Your task to perform on an android device: Search for razer blade on newegg, select the first entry, add it to the cart, then select checkout. Image 0: 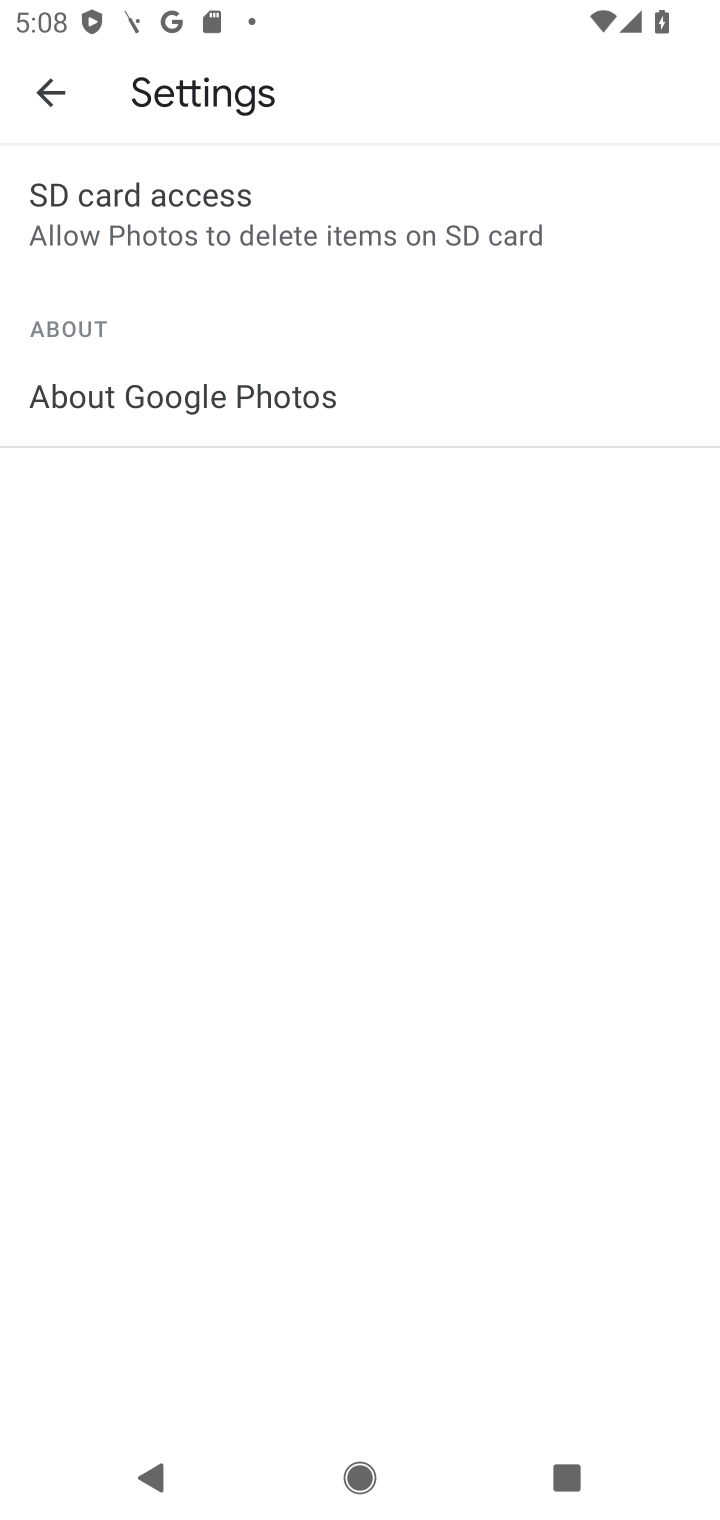
Step 0: press home button
Your task to perform on an android device: Search for razer blade on newegg, select the first entry, add it to the cart, then select checkout. Image 1: 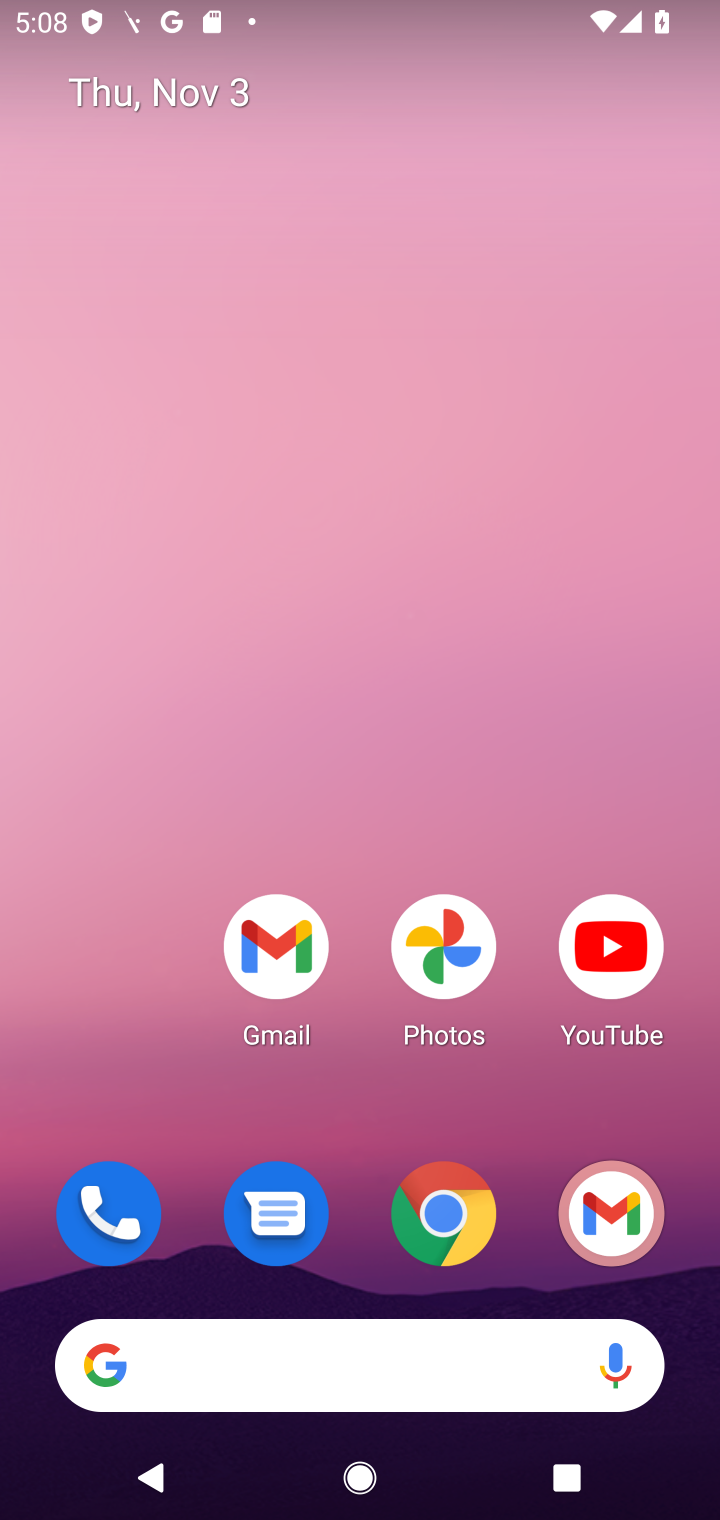
Step 1: click (447, 1225)
Your task to perform on an android device: Search for razer blade on newegg, select the first entry, add it to the cart, then select checkout. Image 2: 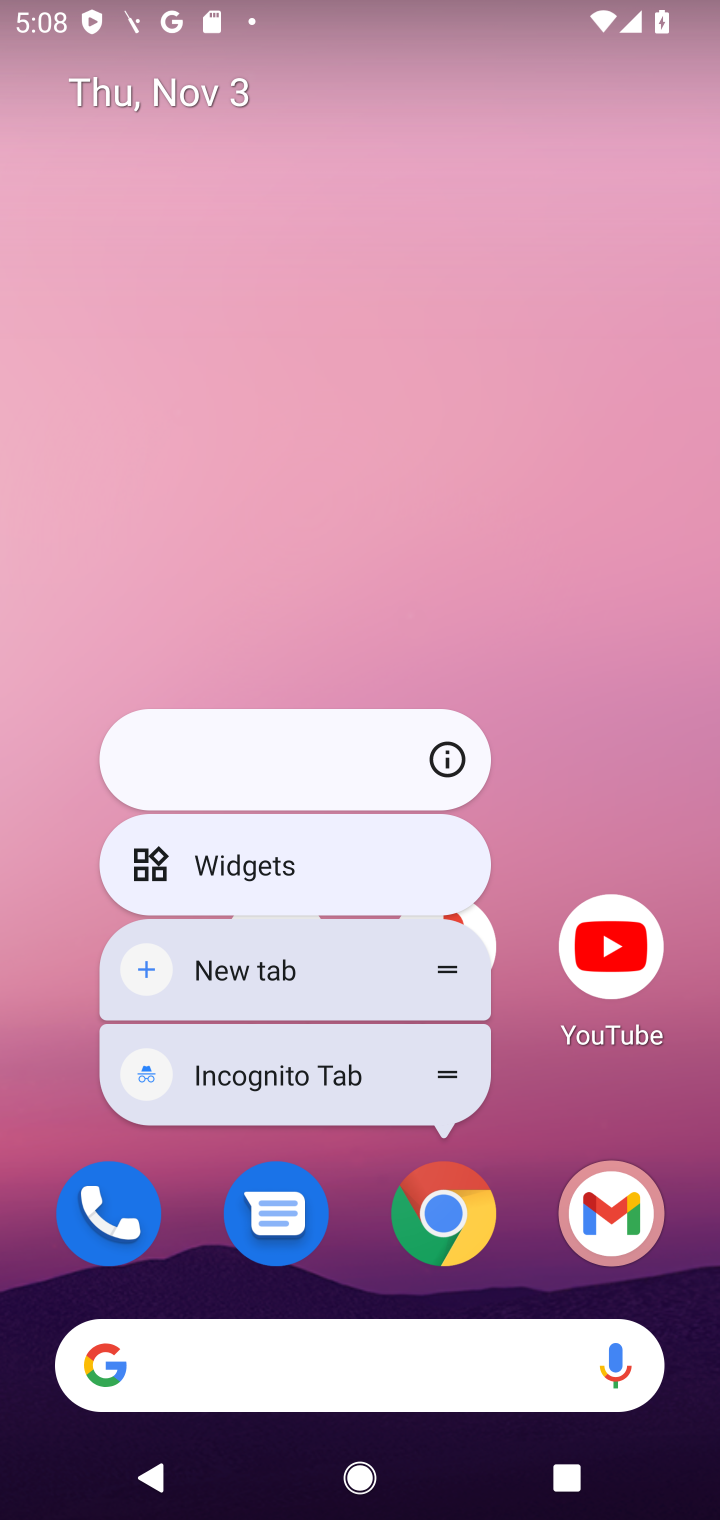
Step 2: click (447, 1225)
Your task to perform on an android device: Search for razer blade on newegg, select the first entry, add it to the cart, then select checkout. Image 3: 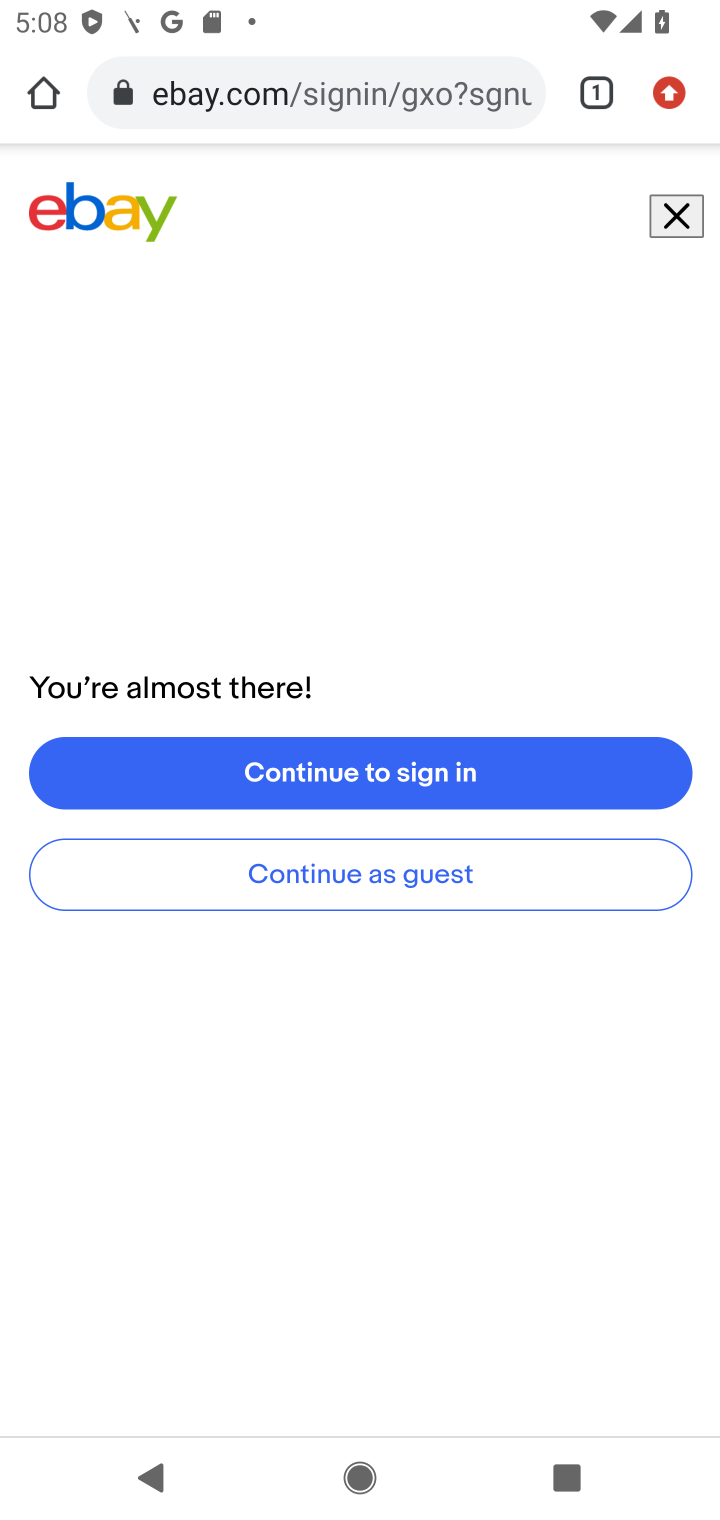
Step 3: click (322, 109)
Your task to perform on an android device: Search for razer blade on newegg, select the first entry, add it to the cart, then select checkout. Image 4: 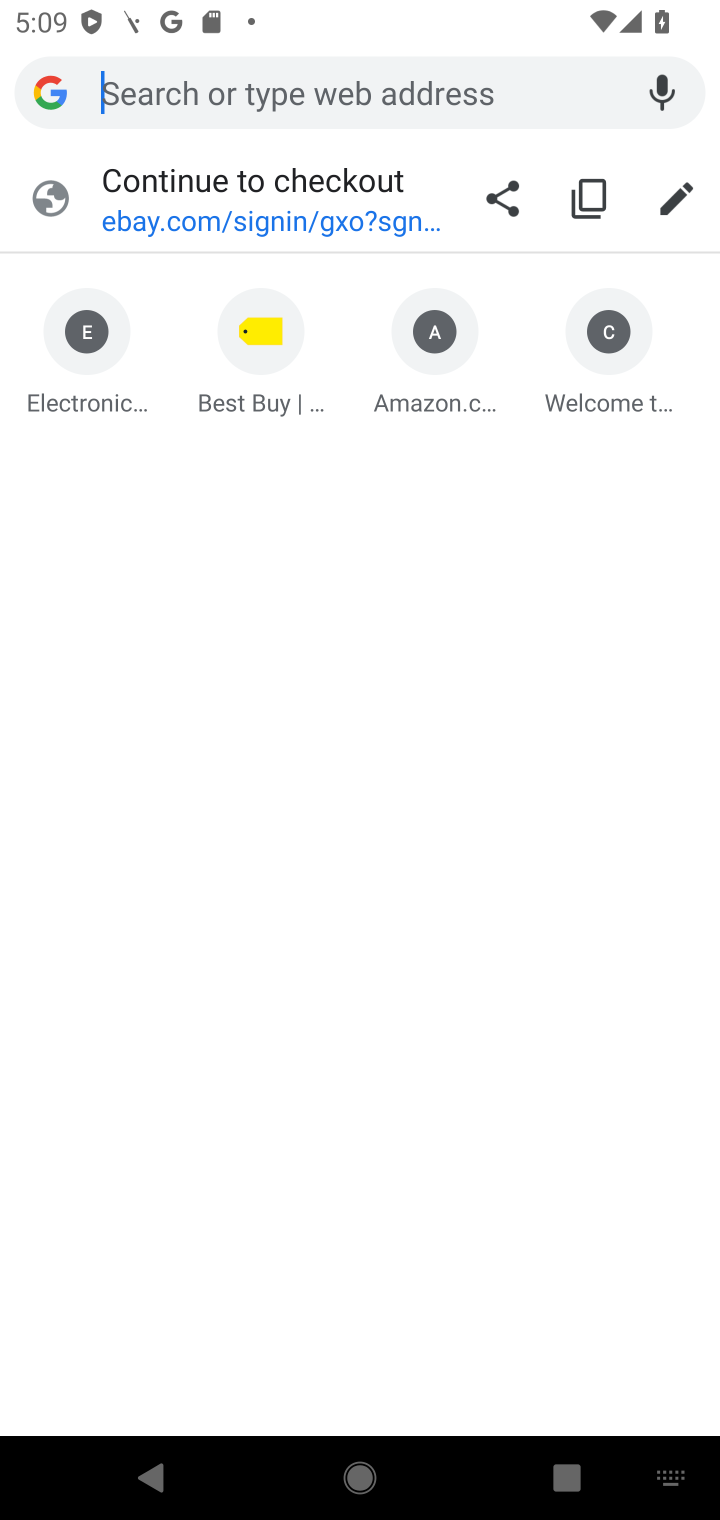
Step 4: type "newegg.com"
Your task to perform on an android device: Search for razer blade on newegg, select the first entry, add it to the cart, then select checkout. Image 5: 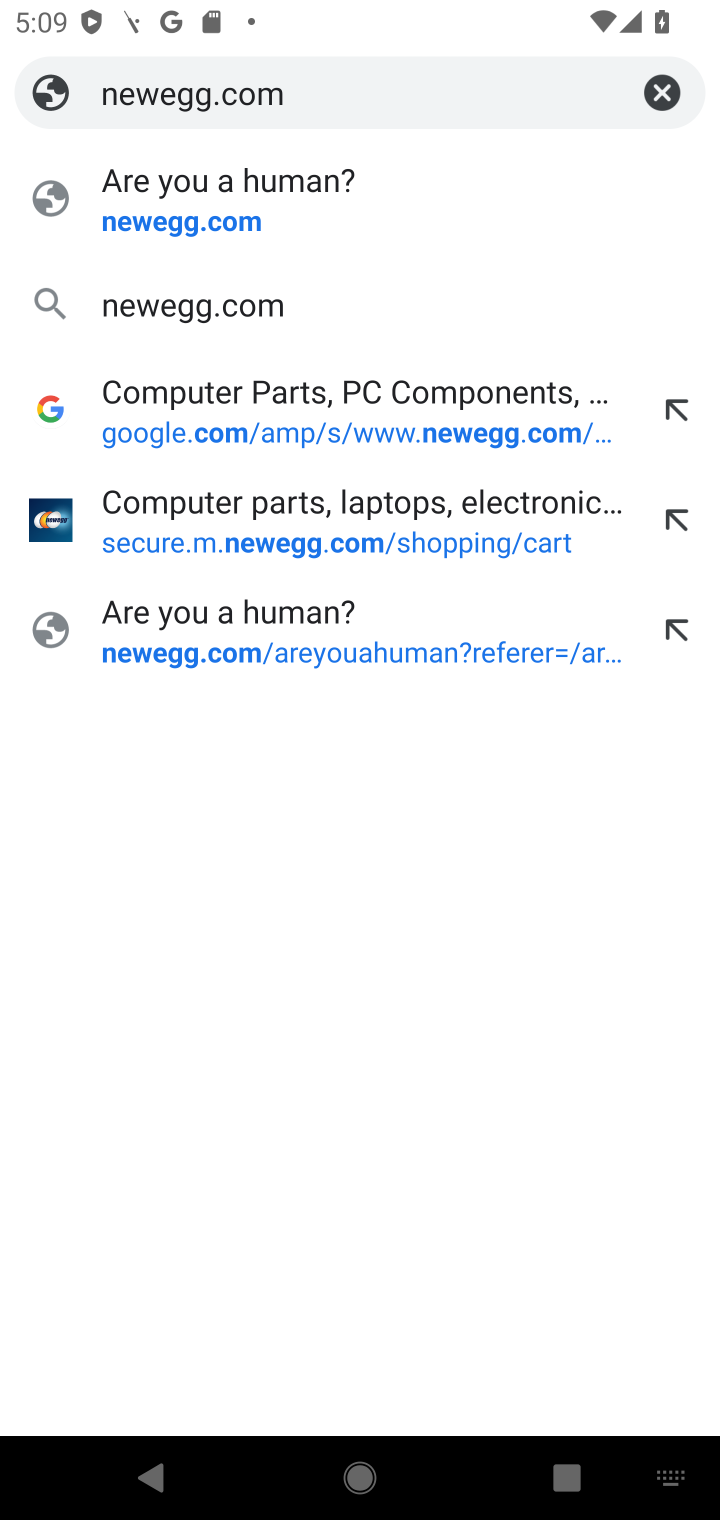
Step 5: click (141, 339)
Your task to perform on an android device: Search for razer blade on newegg, select the first entry, add it to the cart, then select checkout. Image 6: 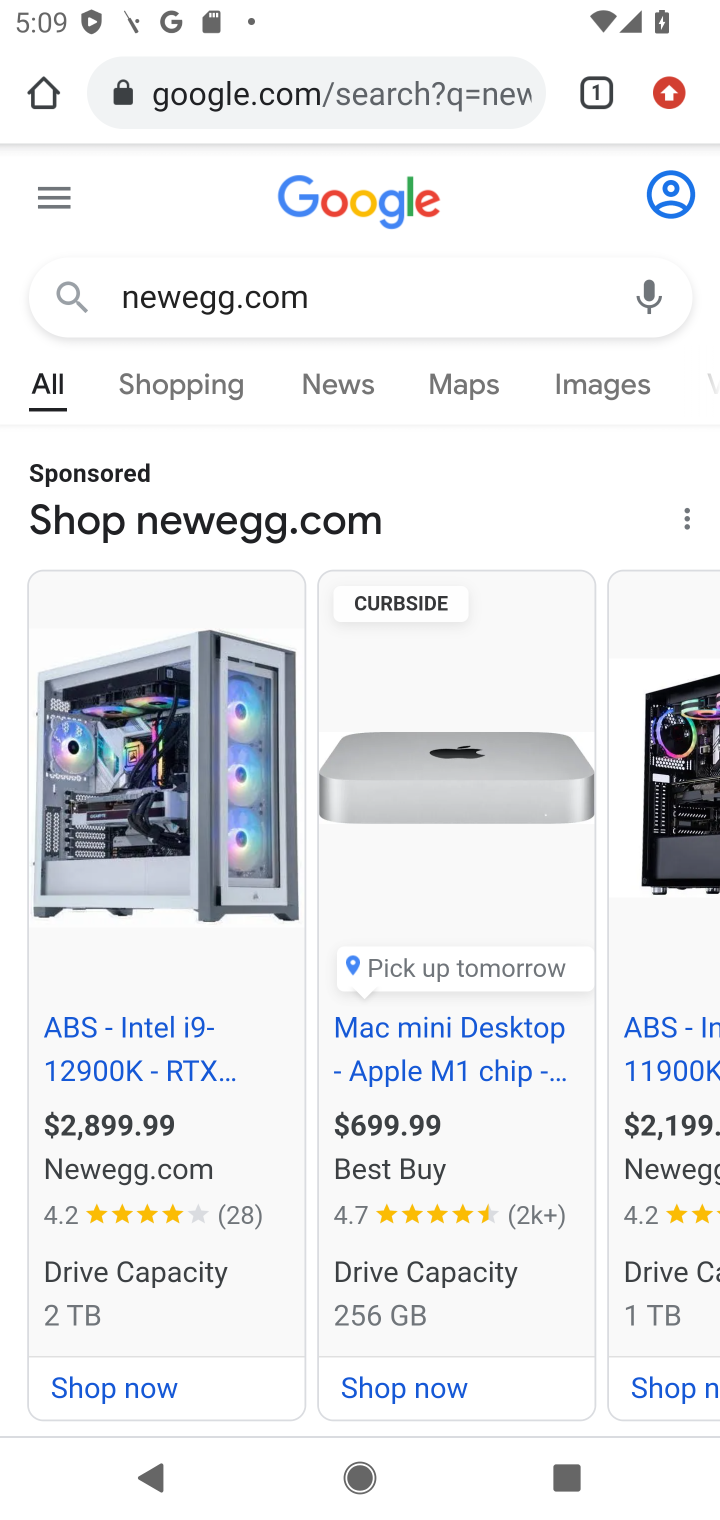
Step 6: drag from (237, 899) to (301, 290)
Your task to perform on an android device: Search for razer blade on newegg, select the first entry, add it to the cart, then select checkout. Image 7: 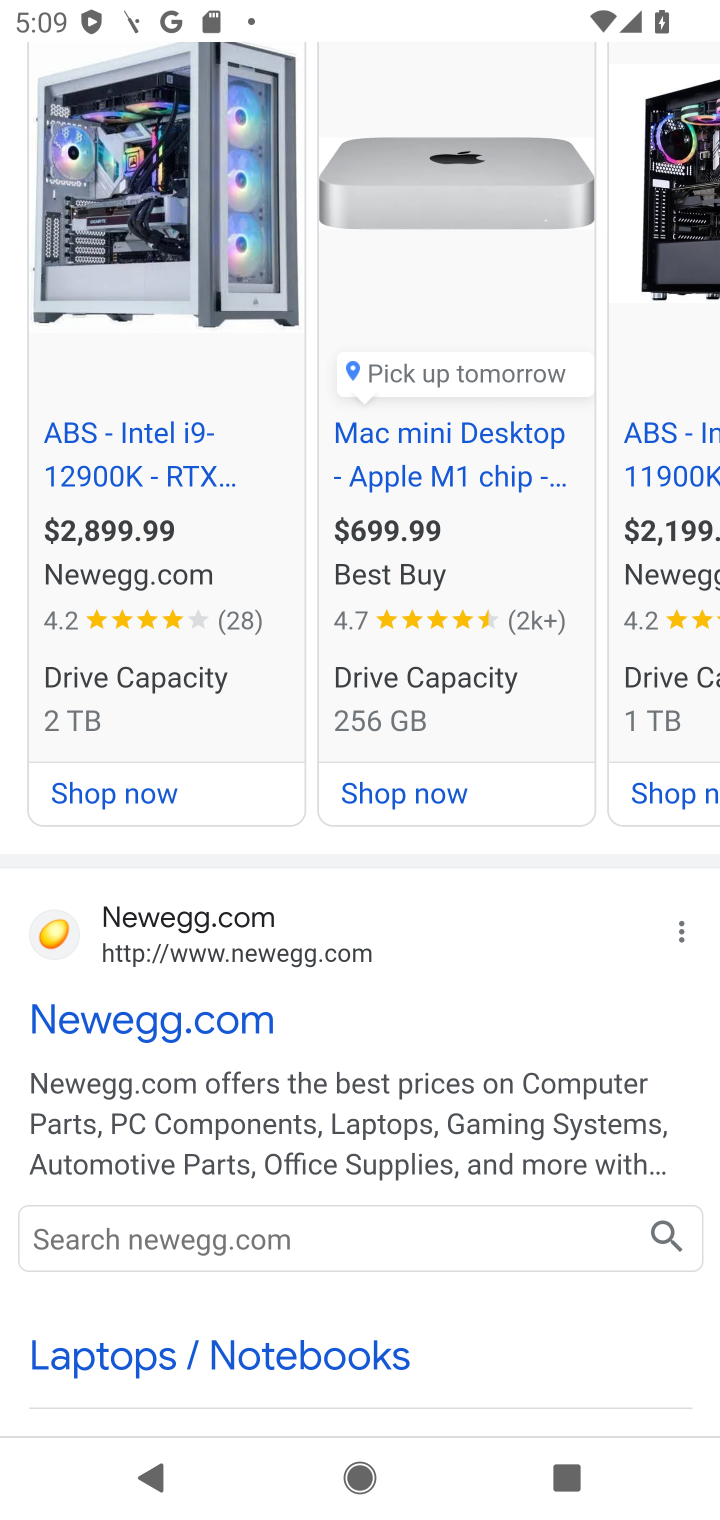
Step 7: click (170, 1040)
Your task to perform on an android device: Search for razer blade on newegg, select the first entry, add it to the cart, then select checkout. Image 8: 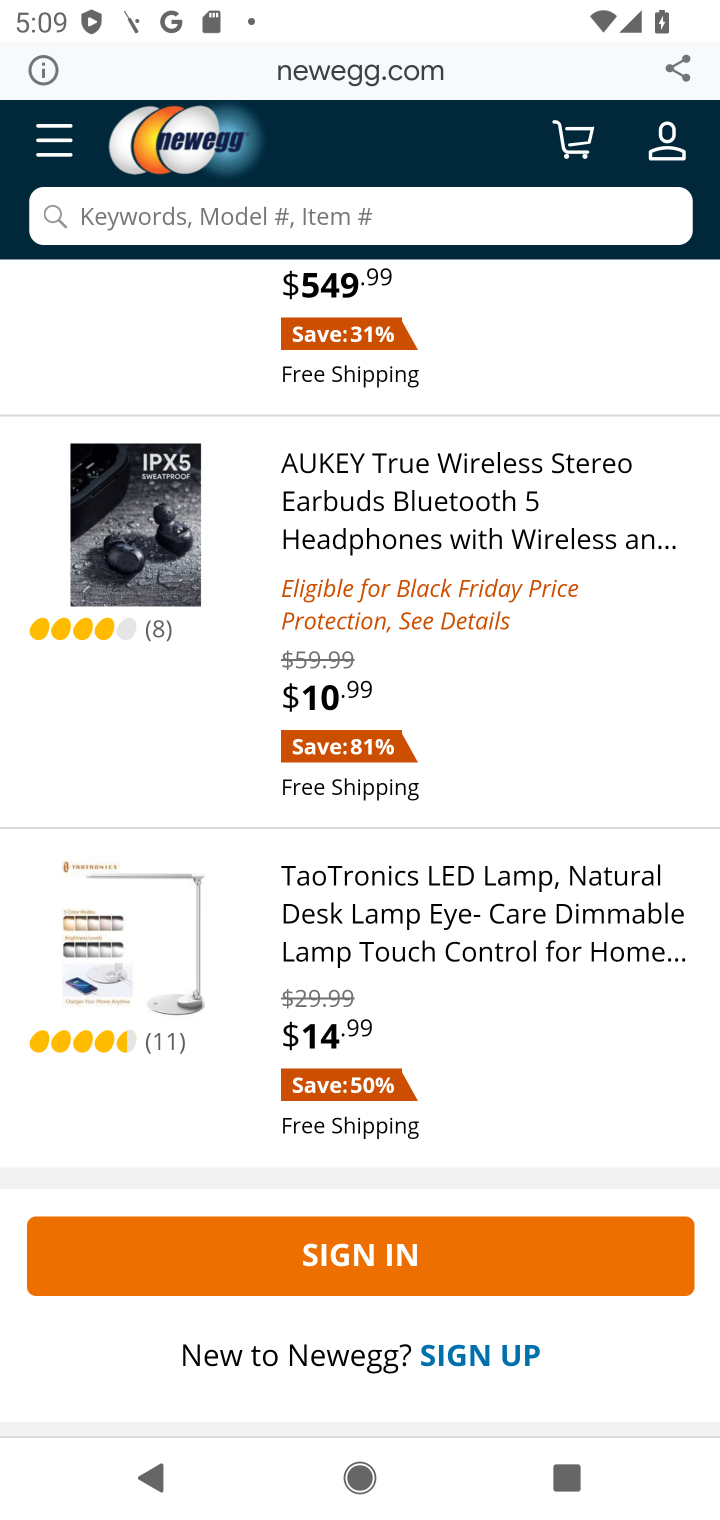
Step 8: click (300, 224)
Your task to perform on an android device: Search for razer blade on newegg, select the first entry, add it to the cart, then select checkout. Image 9: 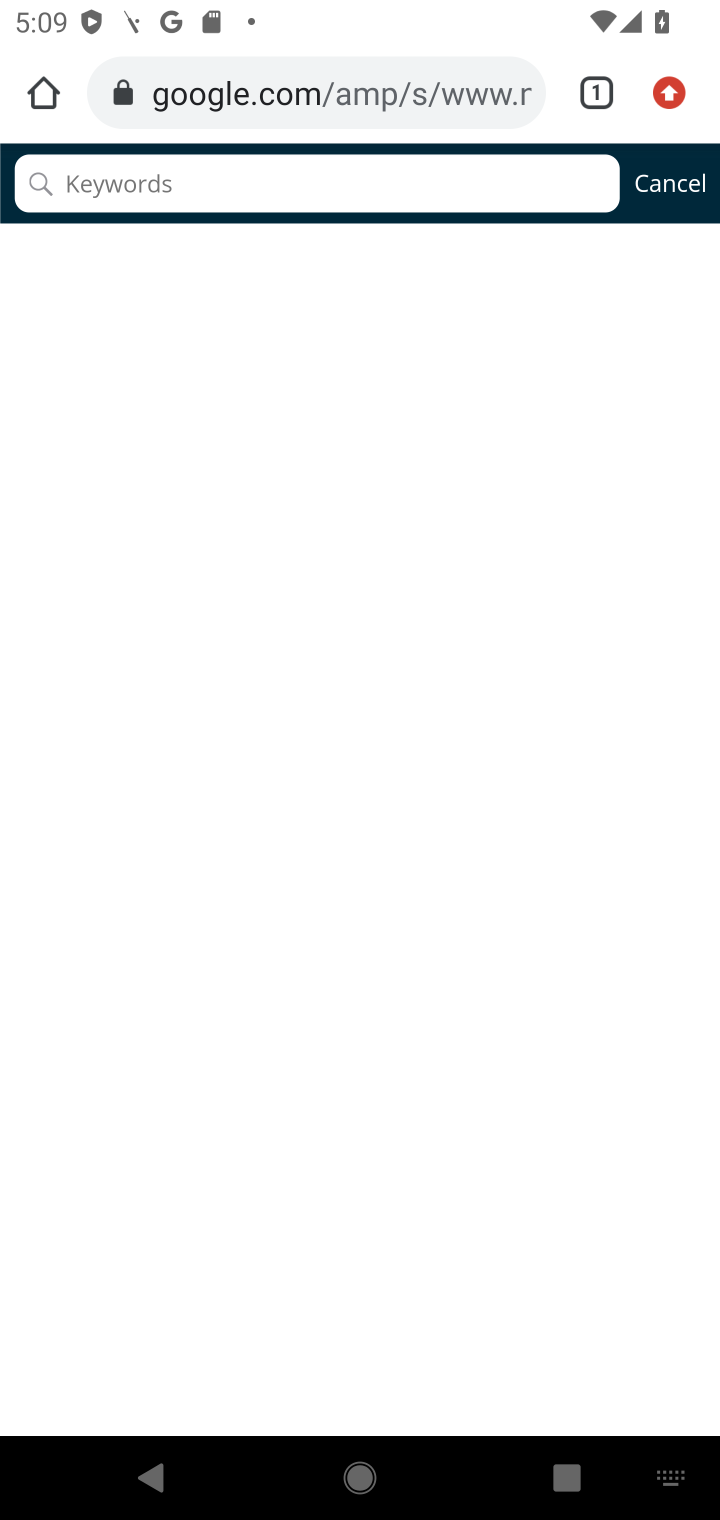
Step 9: type "razer blade "
Your task to perform on an android device: Search for razer blade on newegg, select the first entry, add it to the cart, then select checkout. Image 10: 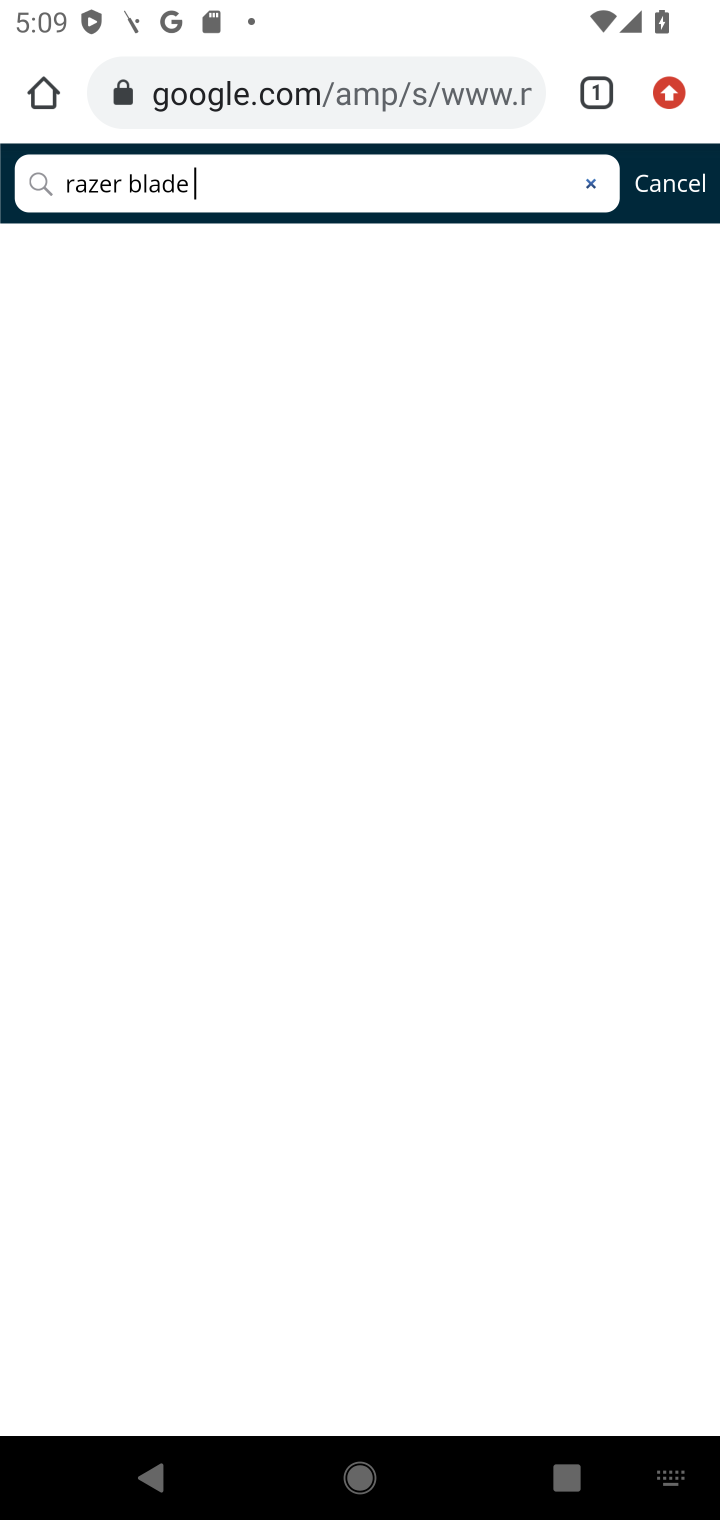
Step 10: click (57, 191)
Your task to perform on an android device: Search for razer blade on newegg, select the first entry, add it to the cart, then select checkout. Image 11: 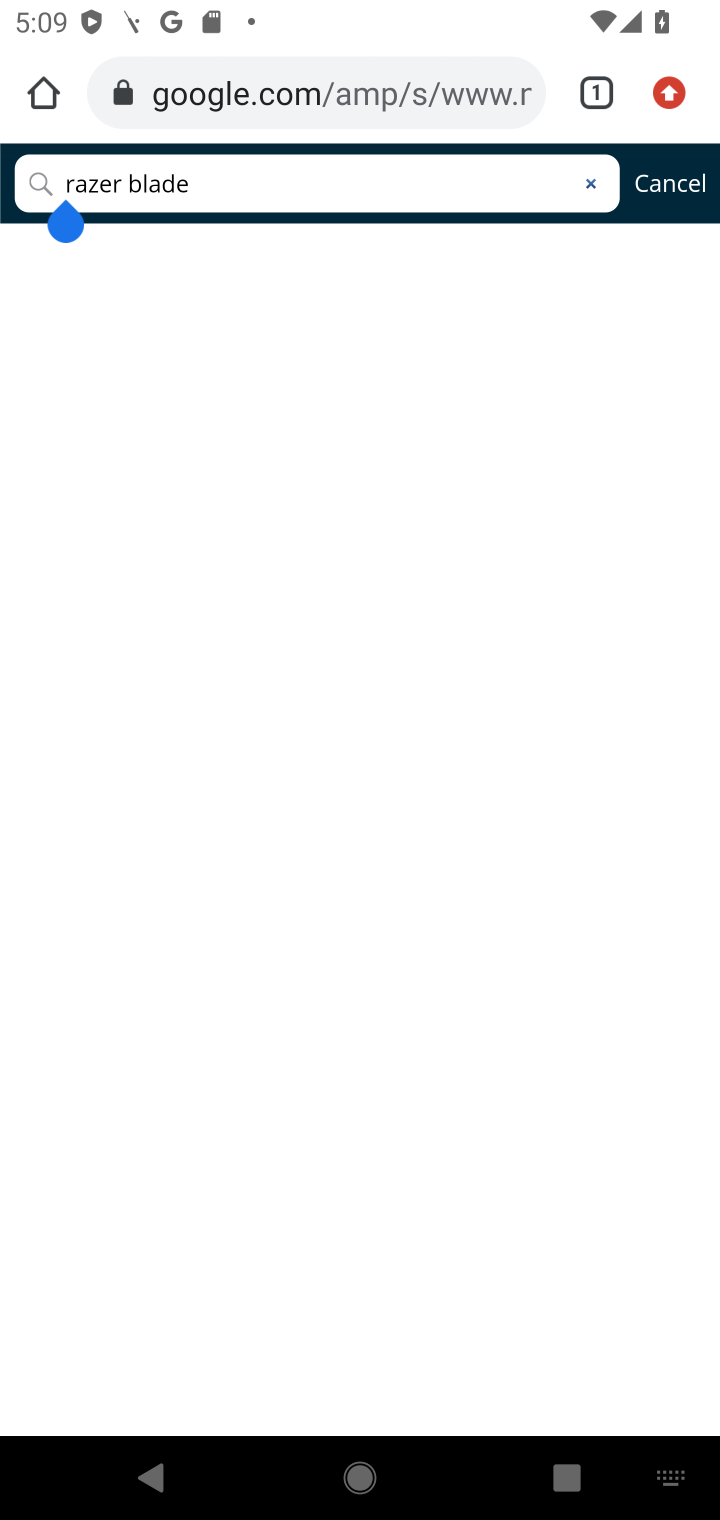
Step 11: task complete